Your task to perform on an android device: open app "Life360: Find Family & Friends" (install if not already installed) Image 0: 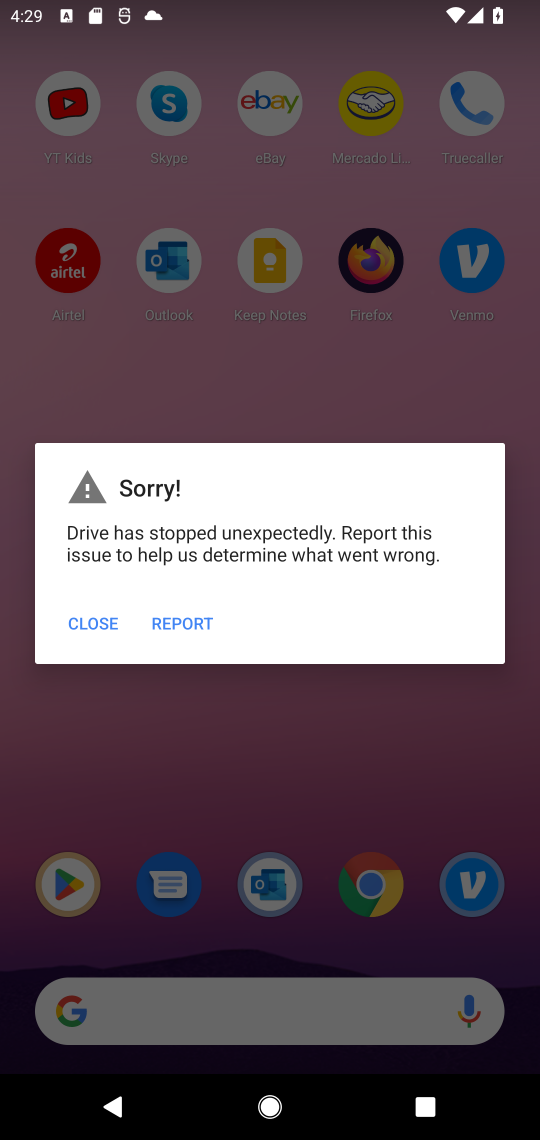
Step 0: press home button
Your task to perform on an android device: open app "Life360: Find Family & Friends" (install if not already installed) Image 1: 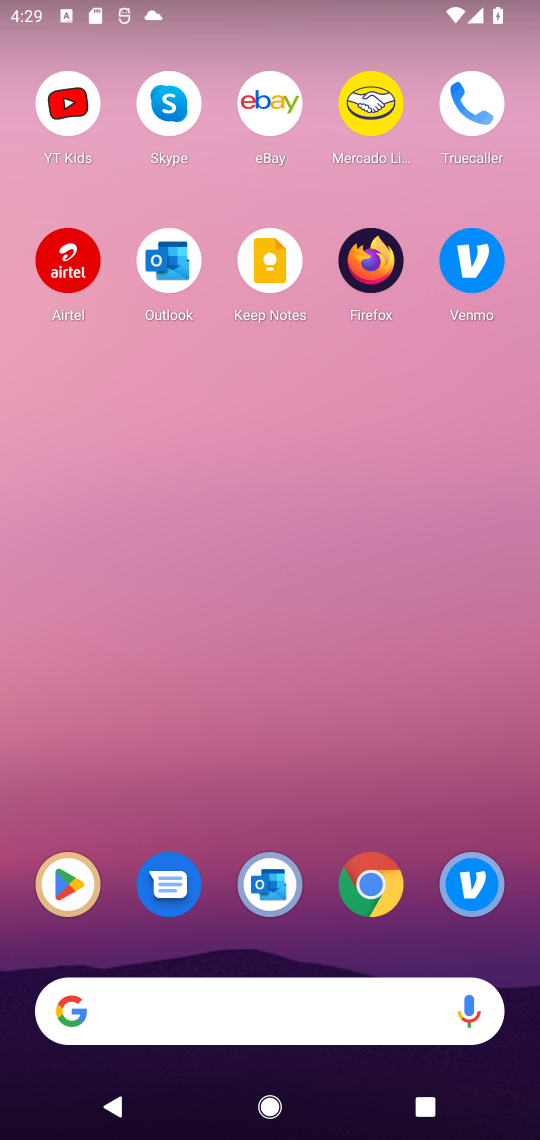
Step 1: click (58, 890)
Your task to perform on an android device: open app "Life360: Find Family & Friends" (install if not already installed) Image 2: 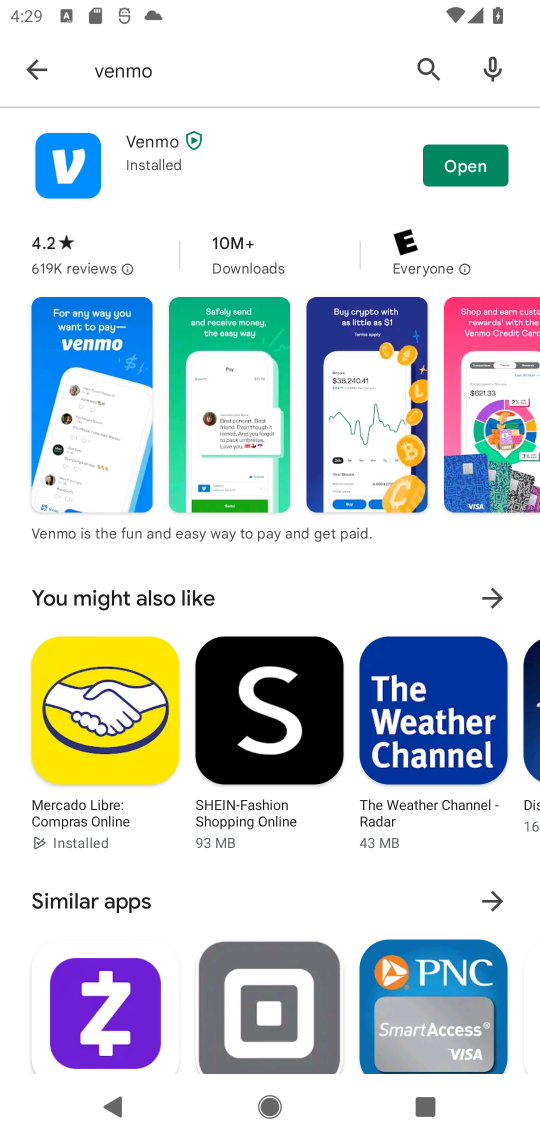
Step 2: click (33, 57)
Your task to perform on an android device: open app "Life360: Find Family & Friends" (install if not already installed) Image 3: 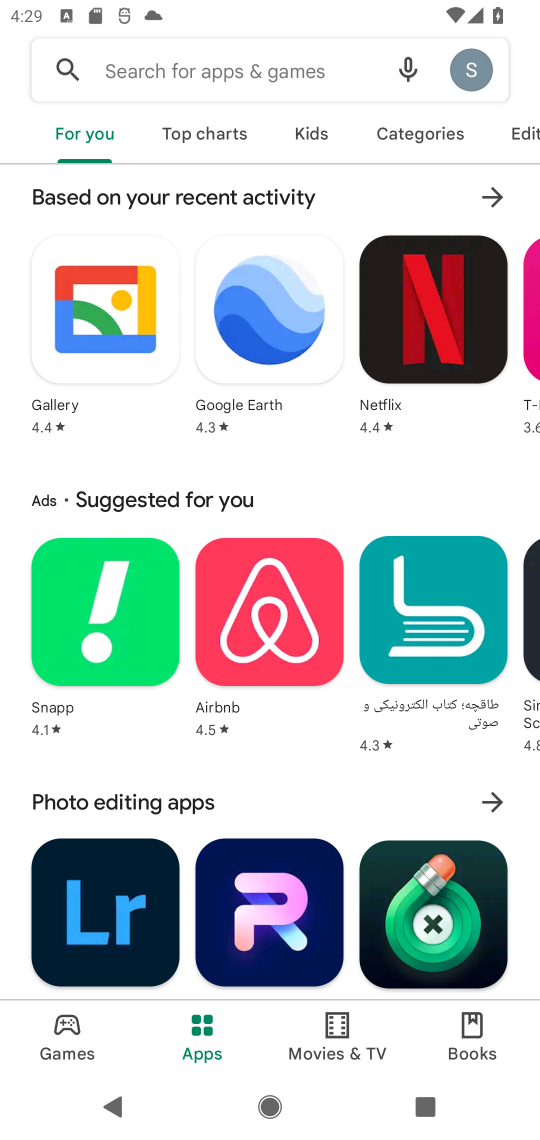
Step 3: click (252, 70)
Your task to perform on an android device: open app "Life360: Find Family & Friends" (install if not already installed) Image 4: 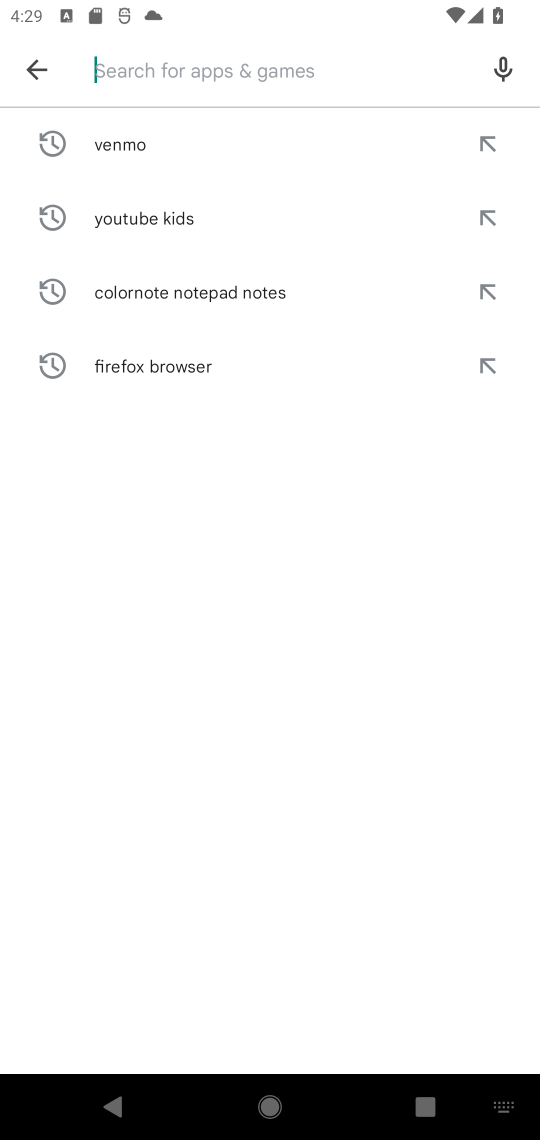
Step 4: type "Life360: Find Family & Friends"
Your task to perform on an android device: open app "Life360: Find Family & Friends" (install if not already installed) Image 5: 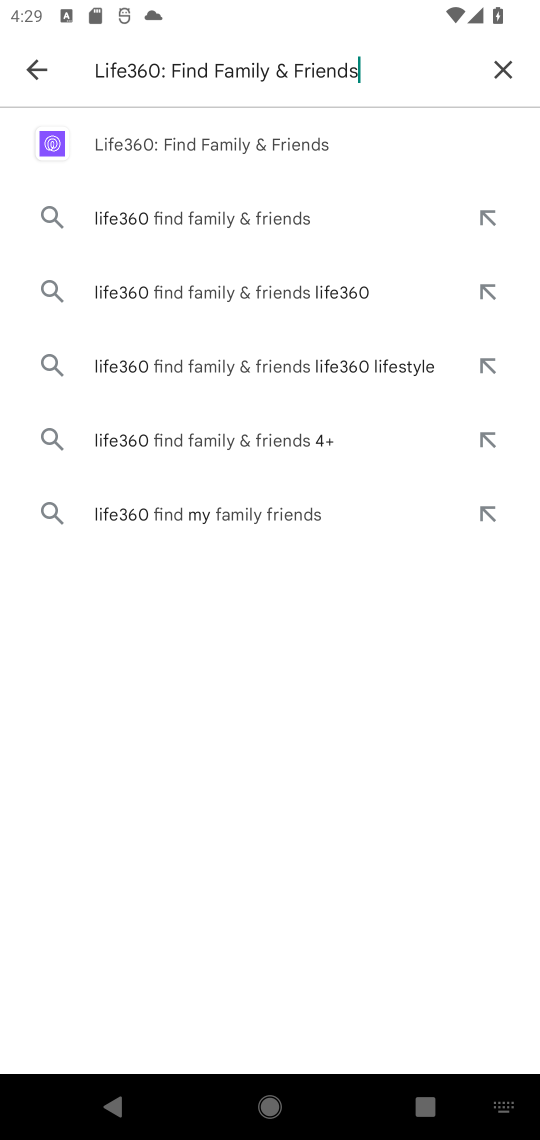
Step 5: click (146, 146)
Your task to perform on an android device: open app "Life360: Find Family & Friends" (install if not already installed) Image 6: 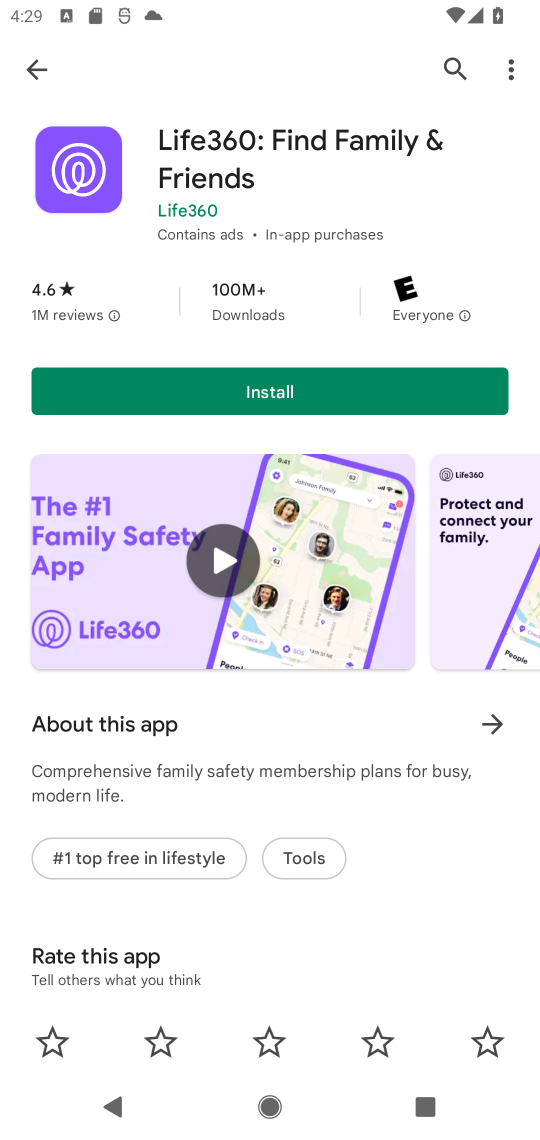
Step 6: click (230, 393)
Your task to perform on an android device: open app "Life360: Find Family & Friends" (install if not already installed) Image 7: 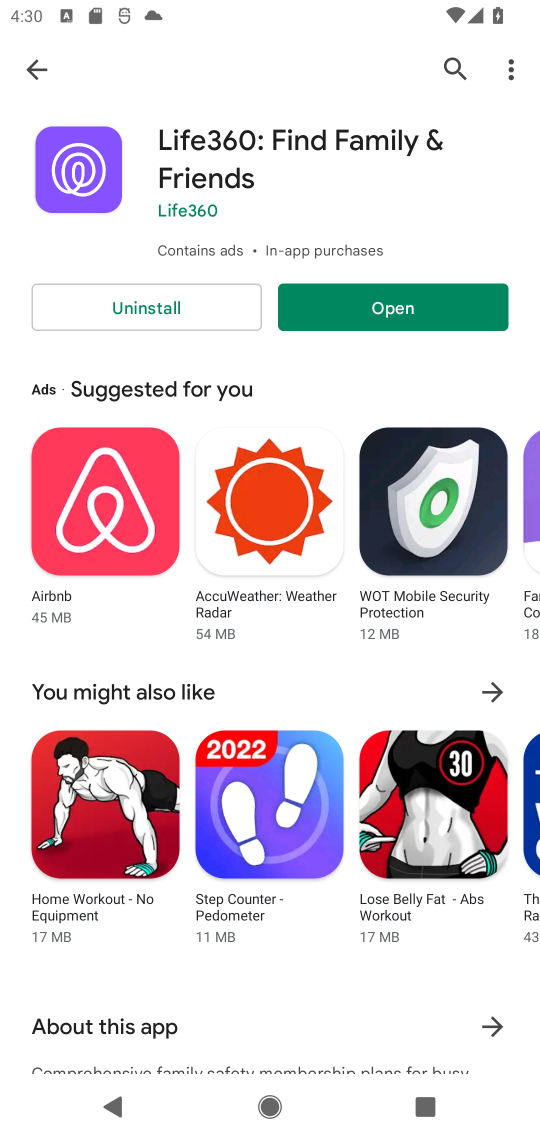
Step 7: click (381, 309)
Your task to perform on an android device: open app "Life360: Find Family & Friends" (install if not already installed) Image 8: 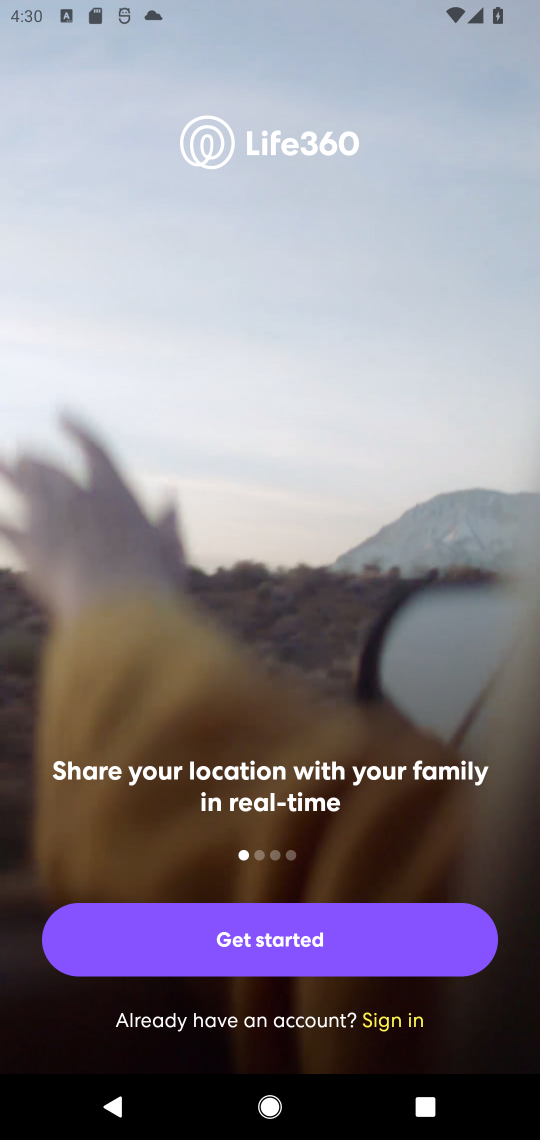
Step 8: task complete